Your task to perform on an android device: set the stopwatch Image 0: 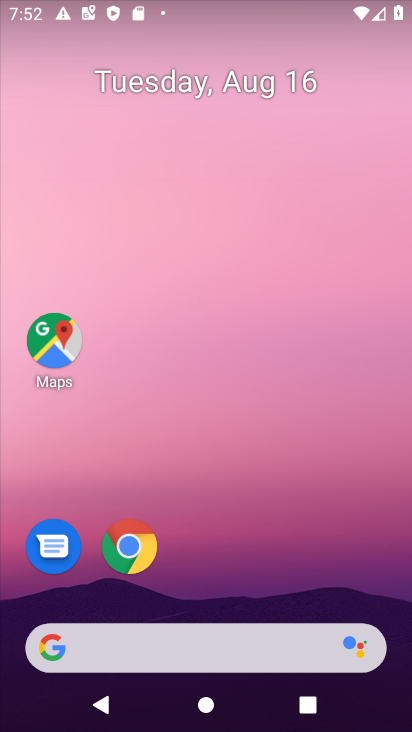
Step 0: drag from (245, 560) to (254, 11)
Your task to perform on an android device: set the stopwatch Image 1: 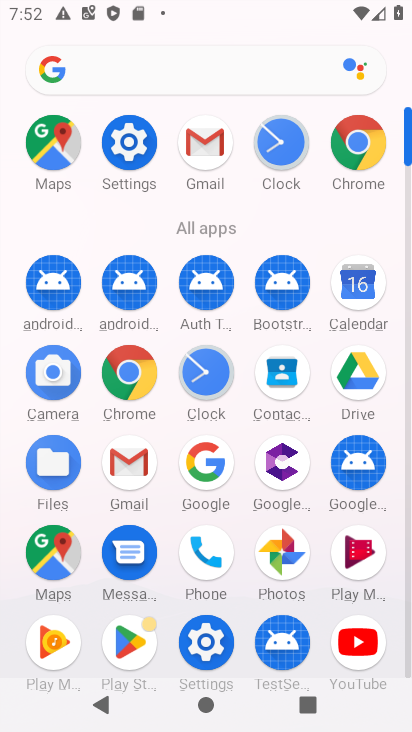
Step 1: click (291, 130)
Your task to perform on an android device: set the stopwatch Image 2: 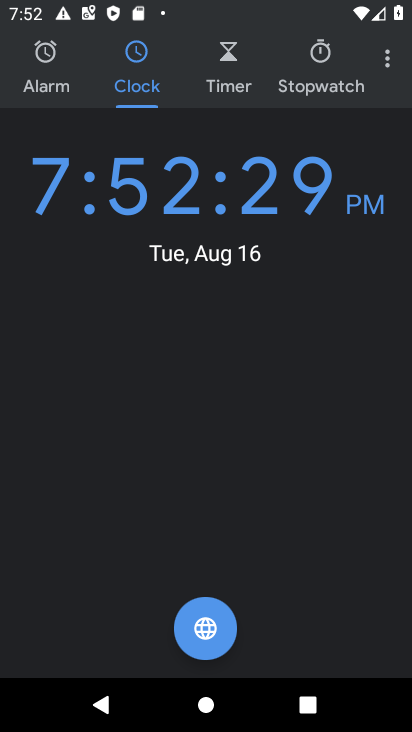
Step 2: click (312, 65)
Your task to perform on an android device: set the stopwatch Image 3: 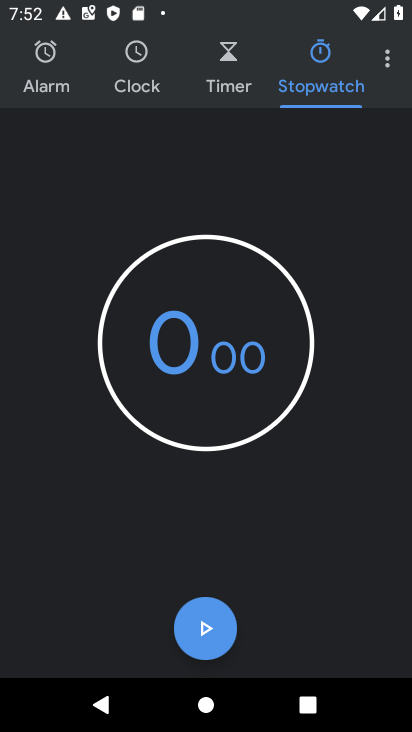
Step 3: task complete